Your task to perform on an android device: turn notification dots on Image 0: 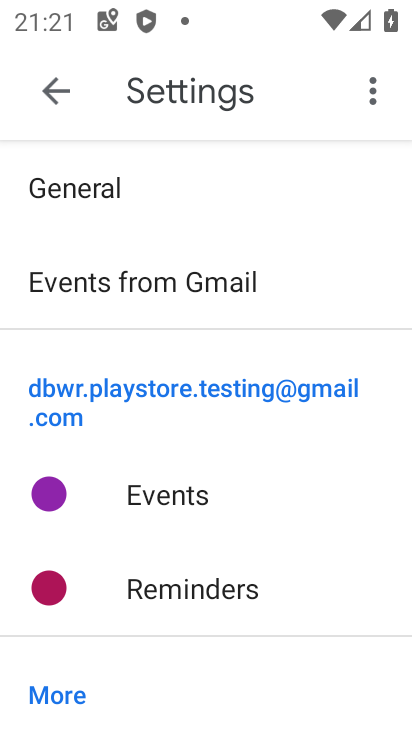
Step 0: press home button
Your task to perform on an android device: turn notification dots on Image 1: 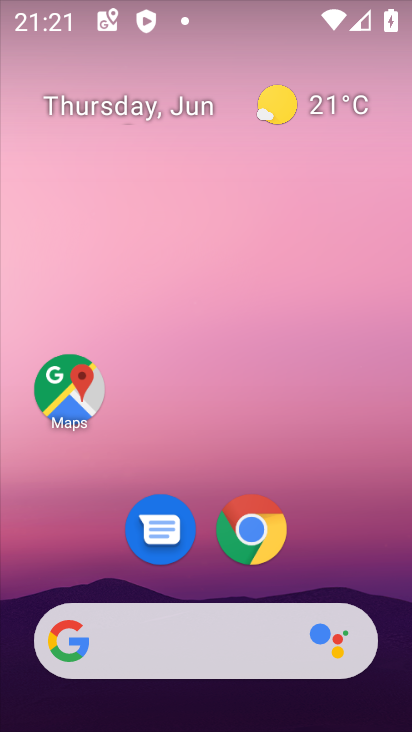
Step 1: drag from (338, 533) to (208, 155)
Your task to perform on an android device: turn notification dots on Image 2: 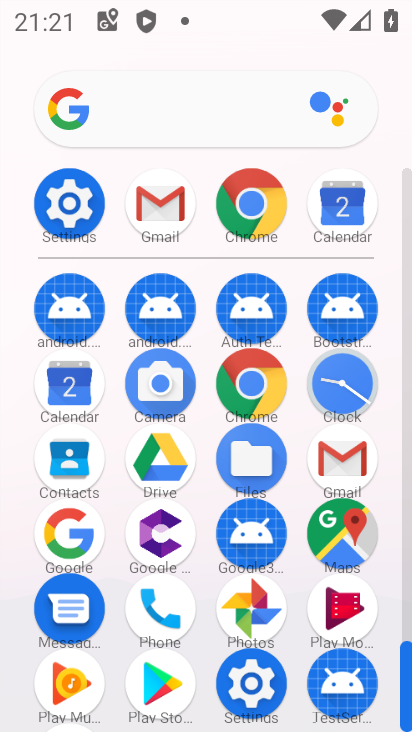
Step 2: click (68, 208)
Your task to perform on an android device: turn notification dots on Image 3: 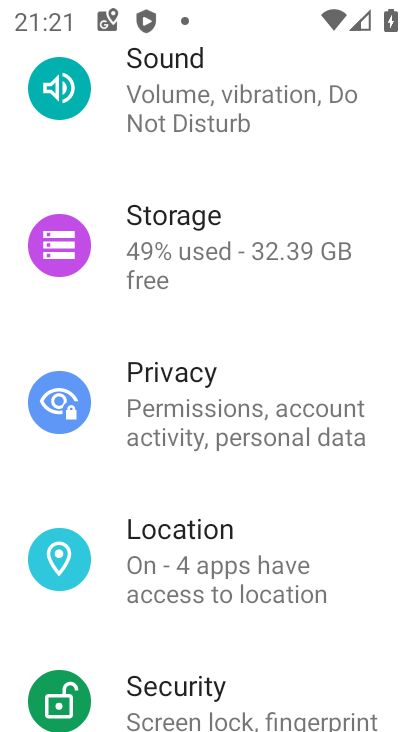
Step 3: drag from (211, 175) to (293, 512)
Your task to perform on an android device: turn notification dots on Image 4: 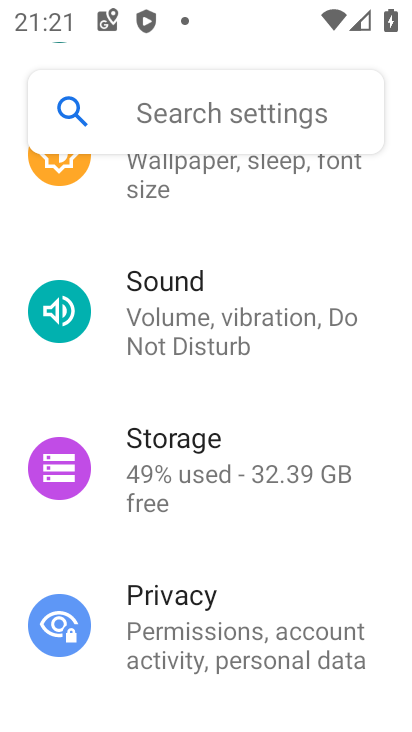
Step 4: drag from (243, 243) to (228, 584)
Your task to perform on an android device: turn notification dots on Image 5: 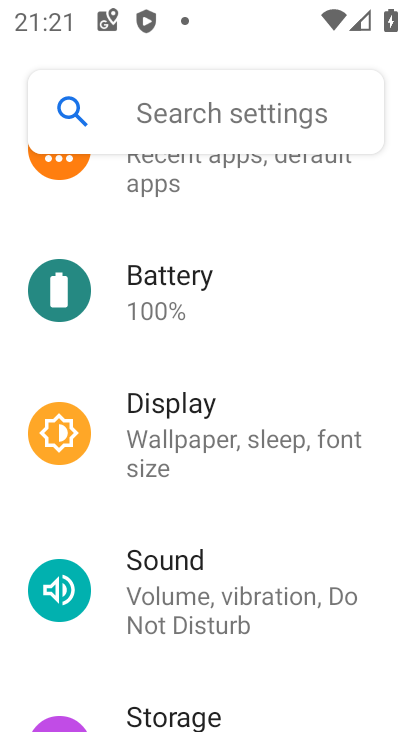
Step 5: drag from (169, 235) to (130, 595)
Your task to perform on an android device: turn notification dots on Image 6: 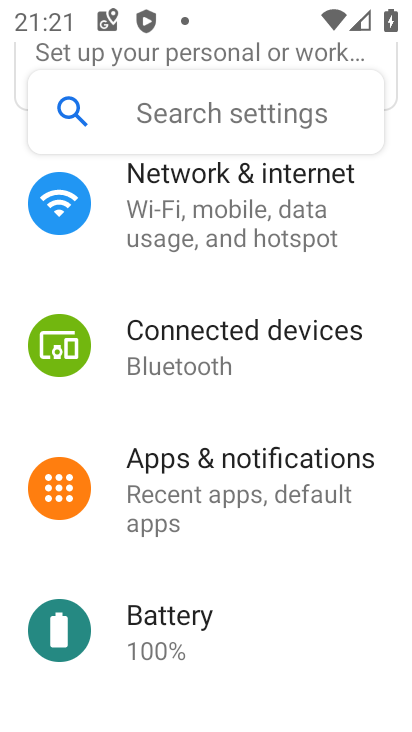
Step 6: click (167, 457)
Your task to perform on an android device: turn notification dots on Image 7: 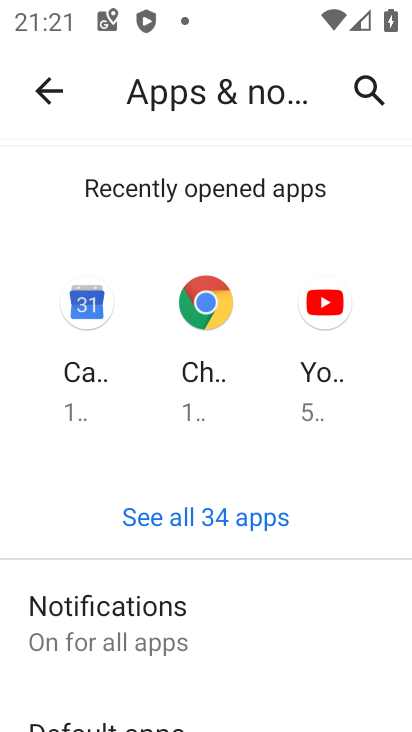
Step 7: click (149, 595)
Your task to perform on an android device: turn notification dots on Image 8: 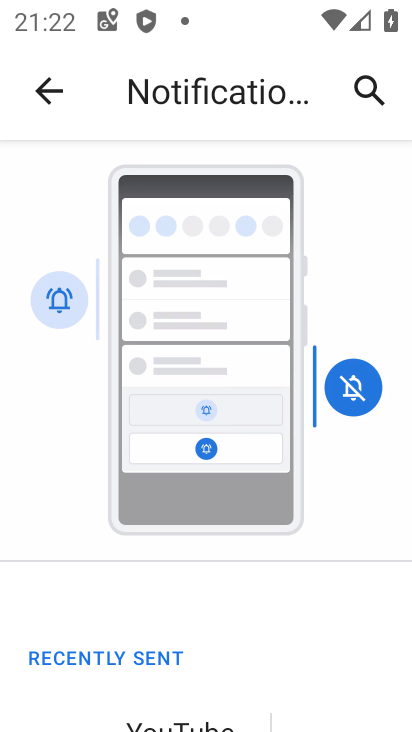
Step 8: drag from (236, 603) to (195, 250)
Your task to perform on an android device: turn notification dots on Image 9: 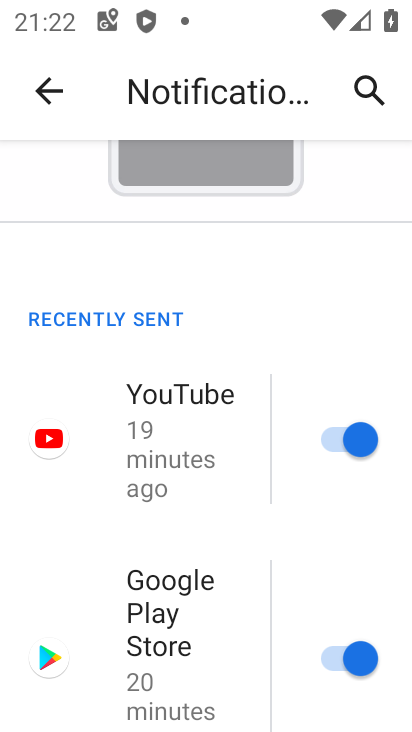
Step 9: drag from (244, 564) to (196, 264)
Your task to perform on an android device: turn notification dots on Image 10: 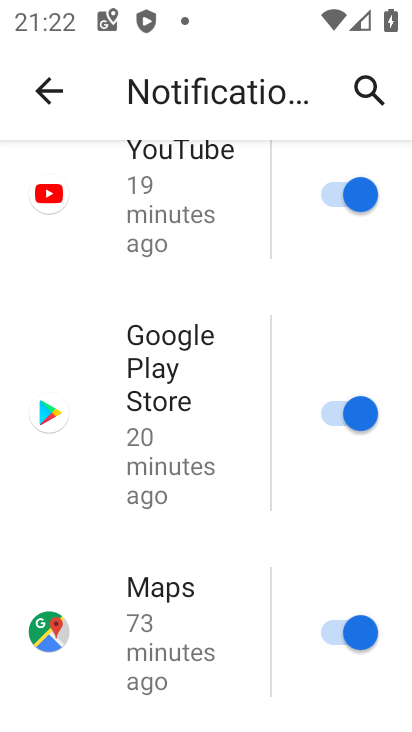
Step 10: drag from (241, 581) to (218, 280)
Your task to perform on an android device: turn notification dots on Image 11: 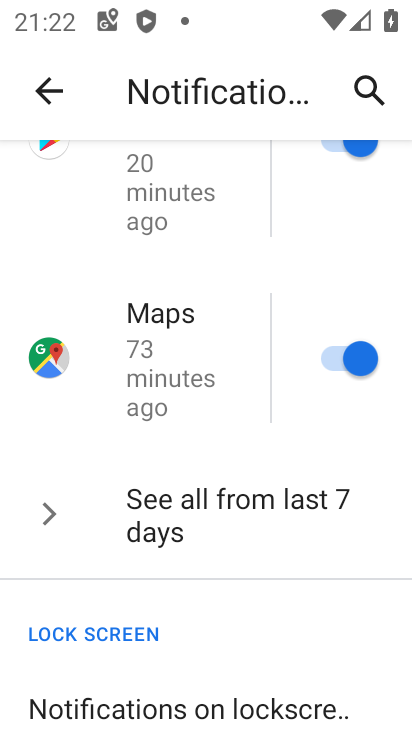
Step 11: drag from (232, 648) to (191, 291)
Your task to perform on an android device: turn notification dots on Image 12: 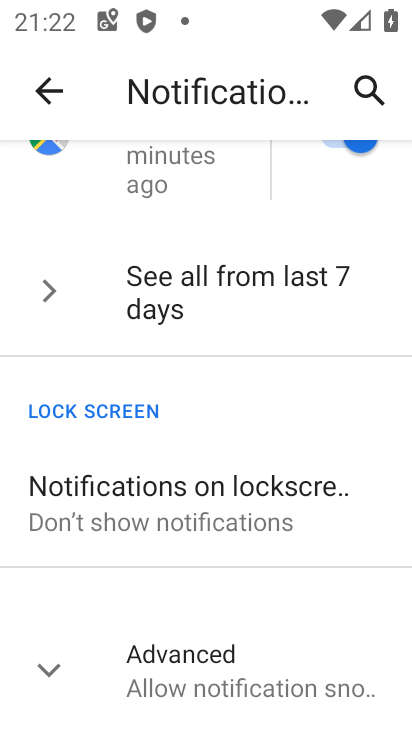
Step 12: click (55, 669)
Your task to perform on an android device: turn notification dots on Image 13: 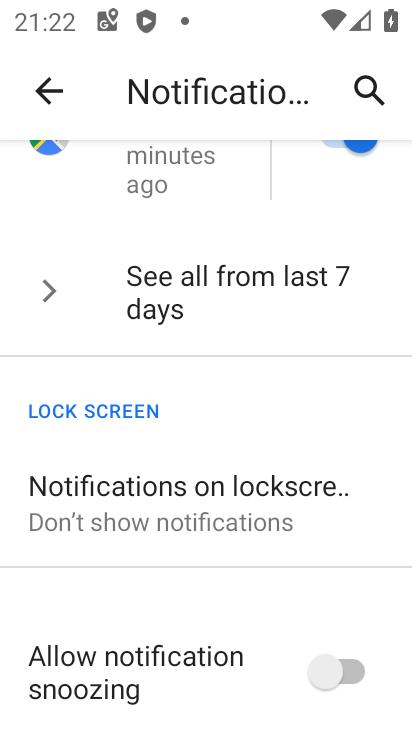
Step 13: drag from (219, 632) to (172, 327)
Your task to perform on an android device: turn notification dots on Image 14: 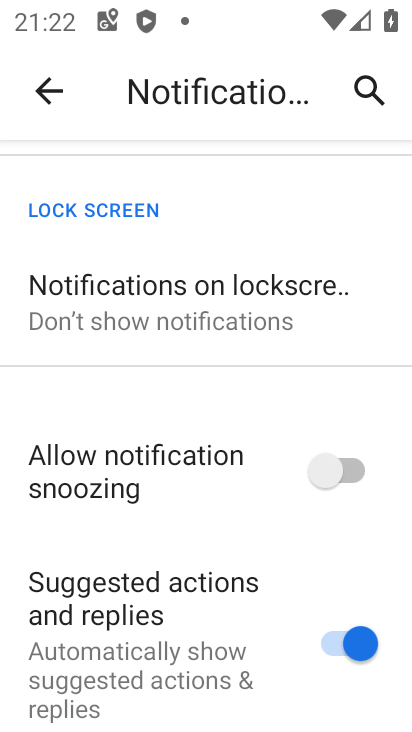
Step 14: drag from (234, 633) to (183, 332)
Your task to perform on an android device: turn notification dots on Image 15: 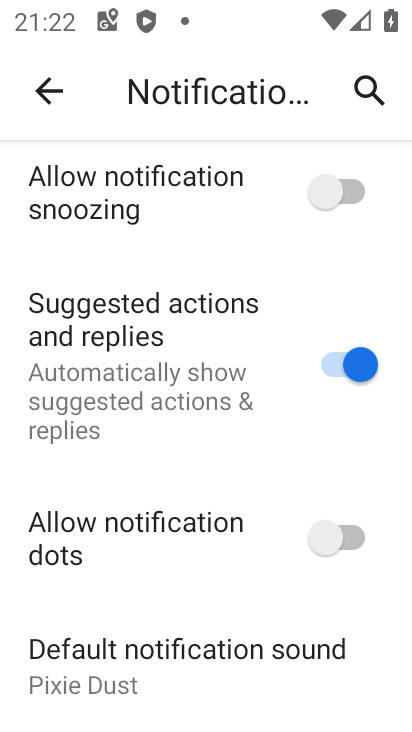
Step 15: click (322, 537)
Your task to perform on an android device: turn notification dots on Image 16: 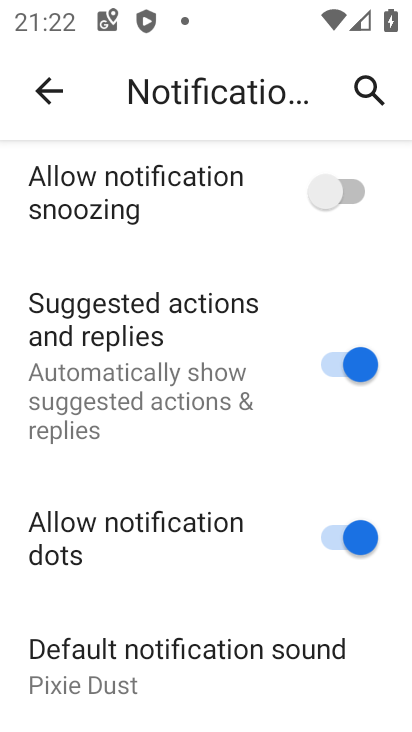
Step 16: task complete